Your task to perform on an android device: What is the news today? Image 0: 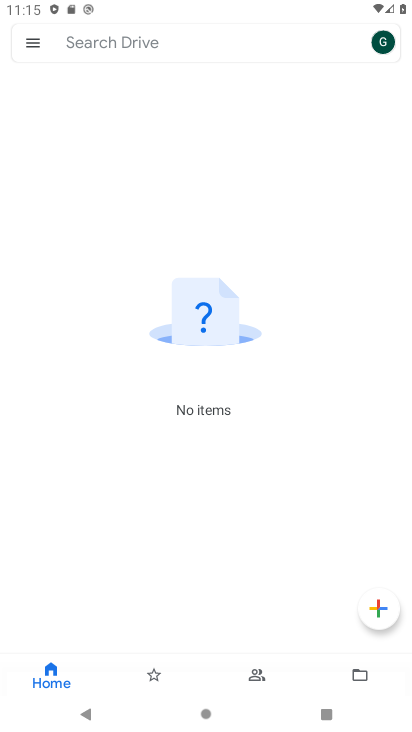
Step 0: press home button
Your task to perform on an android device: What is the news today? Image 1: 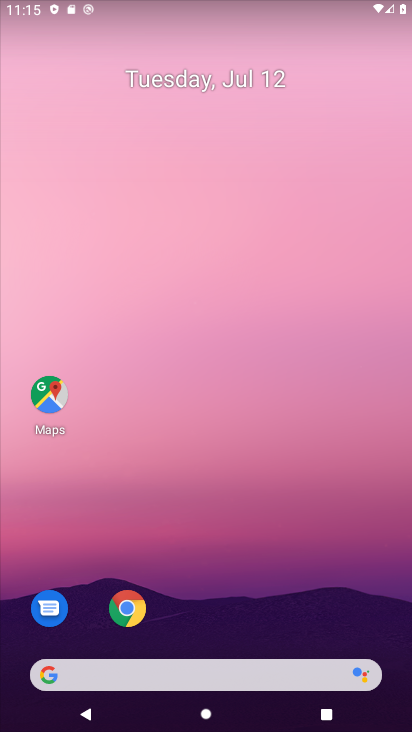
Step 1: task complete